Your task to perform on an android device: turn smart compose on in the gmail app Image 0: 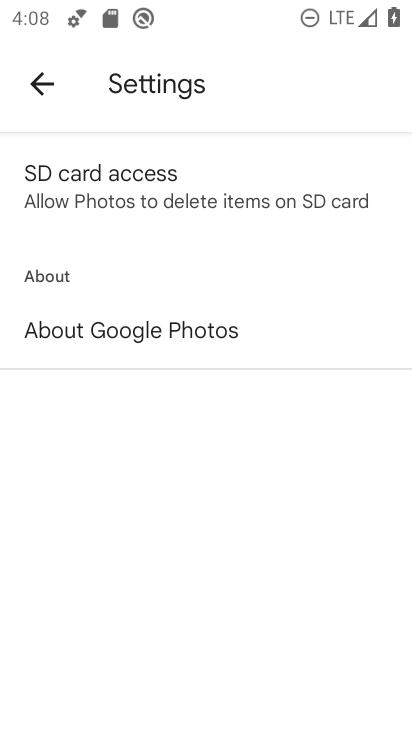
Step 0: press home button
Your task to perform on an android device: turn smart compose on in the gmail app Image 1: 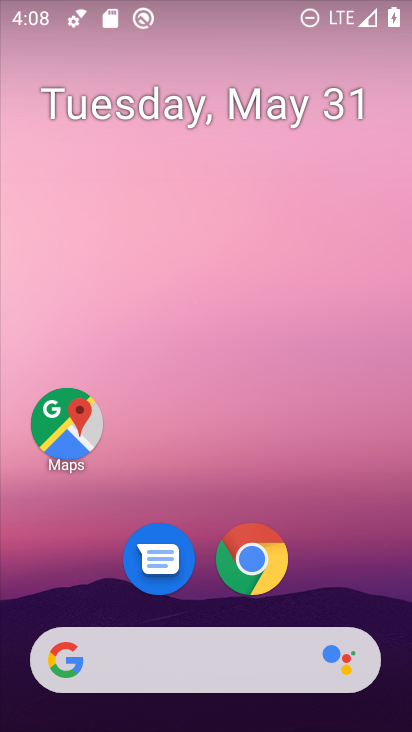
Step 1: drag from (266, 651) to (278, 57)
Your task to perform on an android device: turn smart compose on in the gmail app Image 2: 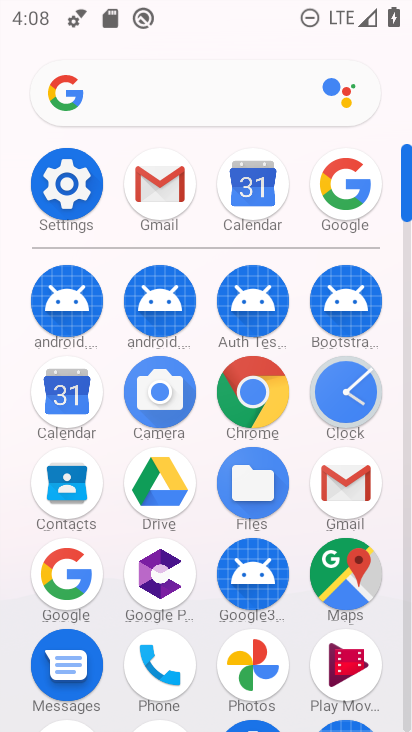
Step 2: click (328, 493)
Your task to perform on an android device: turn smart compose on in the gmail app Image 3: 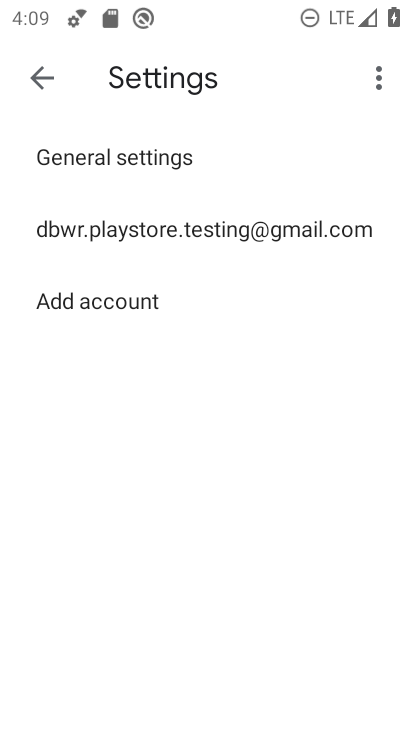
Step 3: click (162, 225)
Your task to perform on an android device: turn smart compose on in the gmail app Image 4: 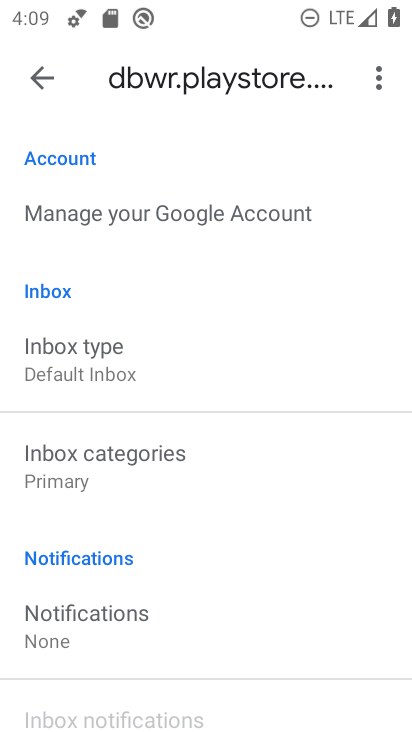
Step 4: task complete